Your task to perform on an android device: Go to Android settings Image 0: 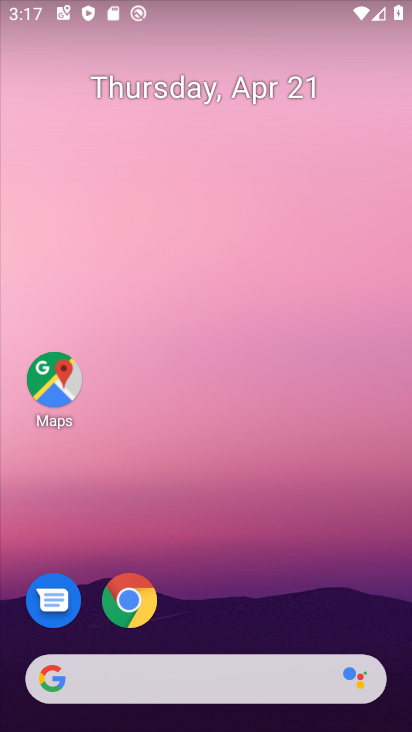
Step 0: drag from (221, 614) to (169, 7)
Your task to perform on an android device: Go to Android settings Image 1: 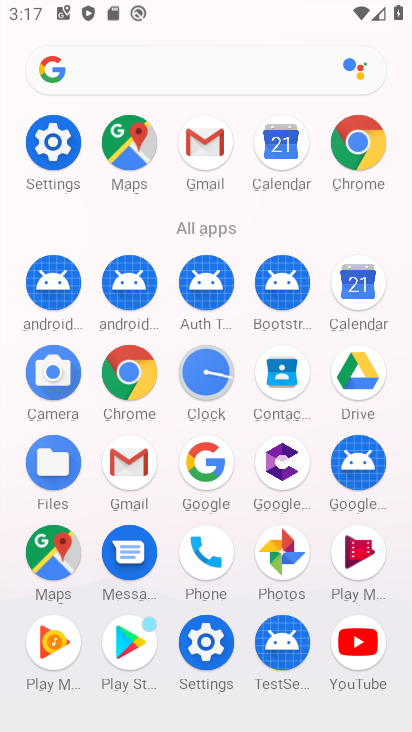
Step 1: click (53, 142)
Your task to perform on an android device: Go to Android settings Image 2: 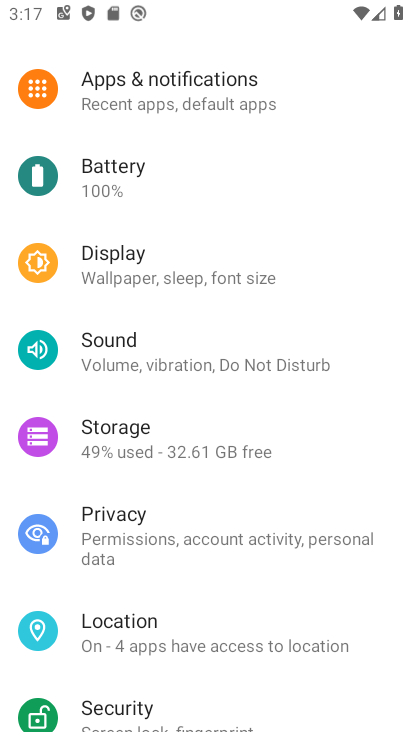
Step 2: task complete